Your task to perform on an android device: toggle improve location accuracy Image 0: 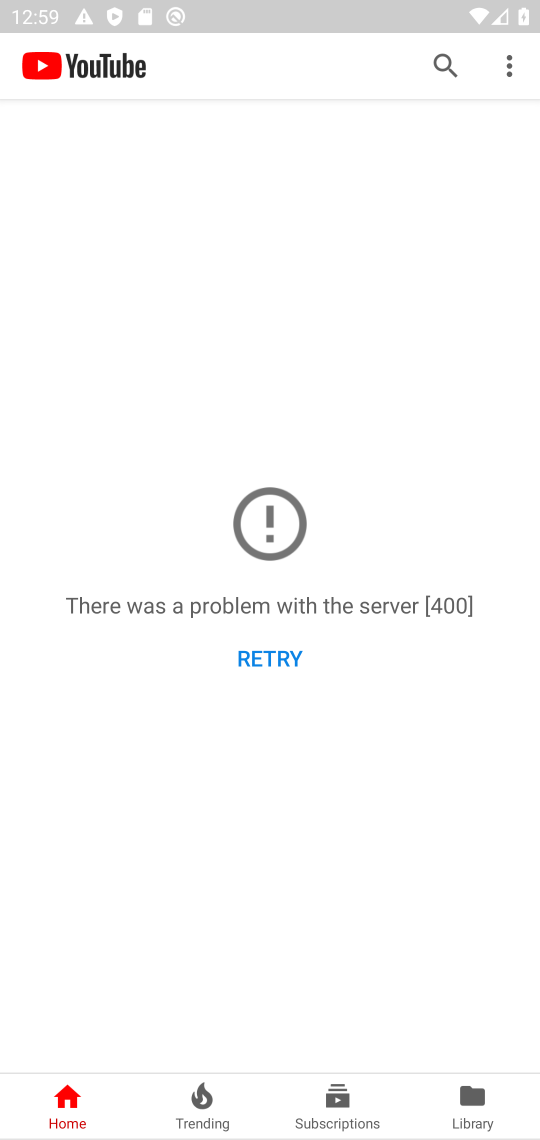
Step 0: press home button
Your task to perform on an android device: toggle improve location accuracy Image 1: 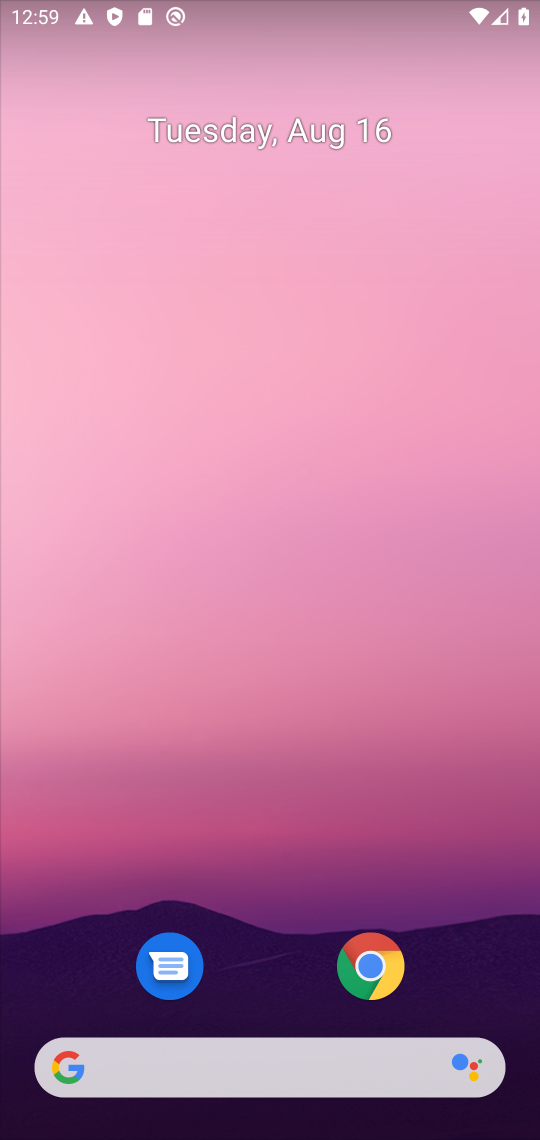
Step 1: drag from (220, 915) to (200, 82)
Your task to perform on an android device: toggle improve location accuracy Image 2: 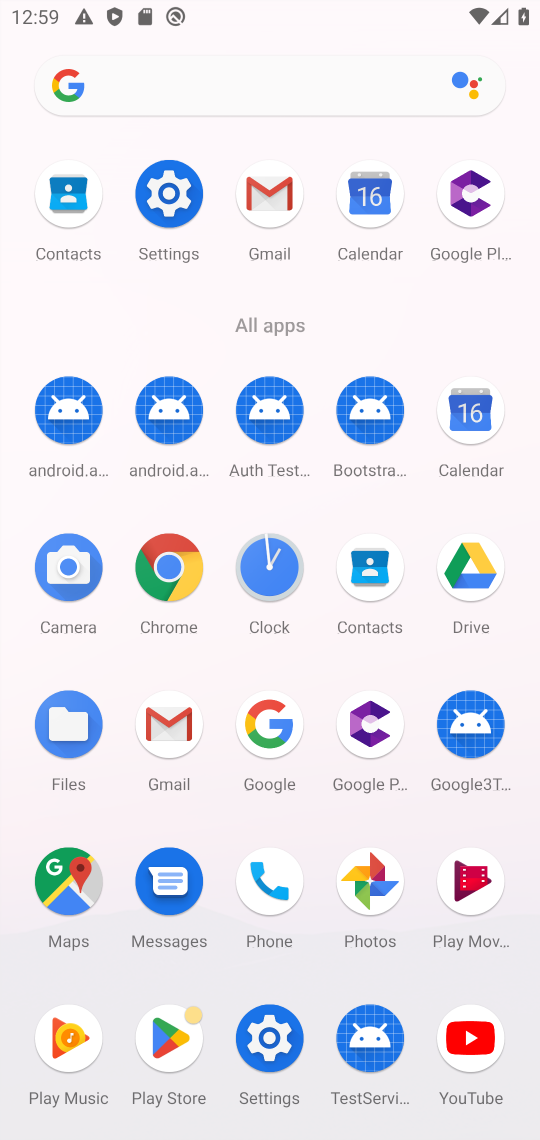
Step 2: click (170, 190)
Your task to perform on an android device: toggle improve location accuracy Image 3: 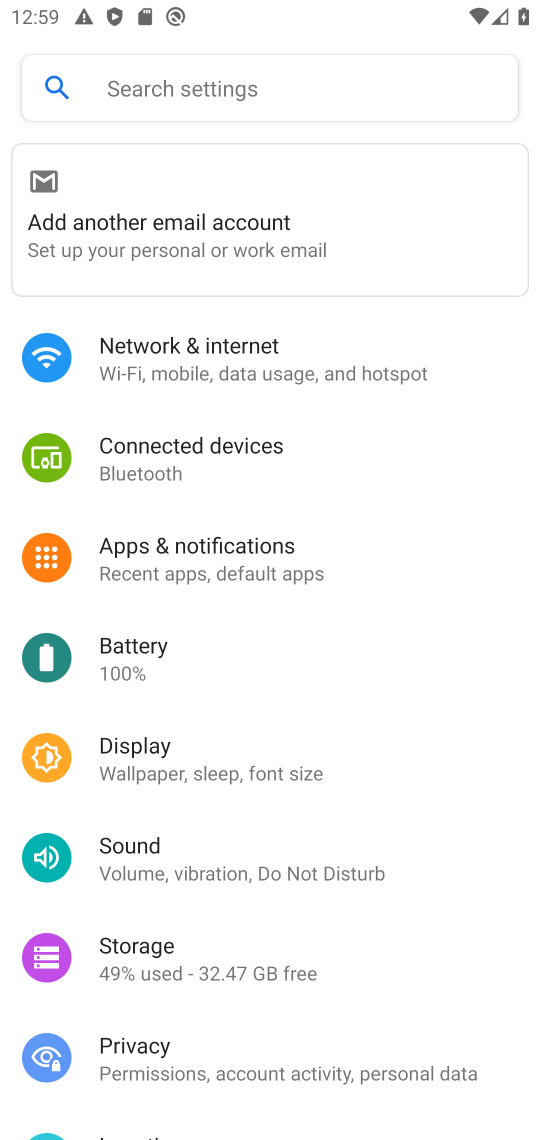
Step 3: drag from (314, 999) to (268, 79)
Your task to perform on an android device: toggle improve location accuracy Image 4: 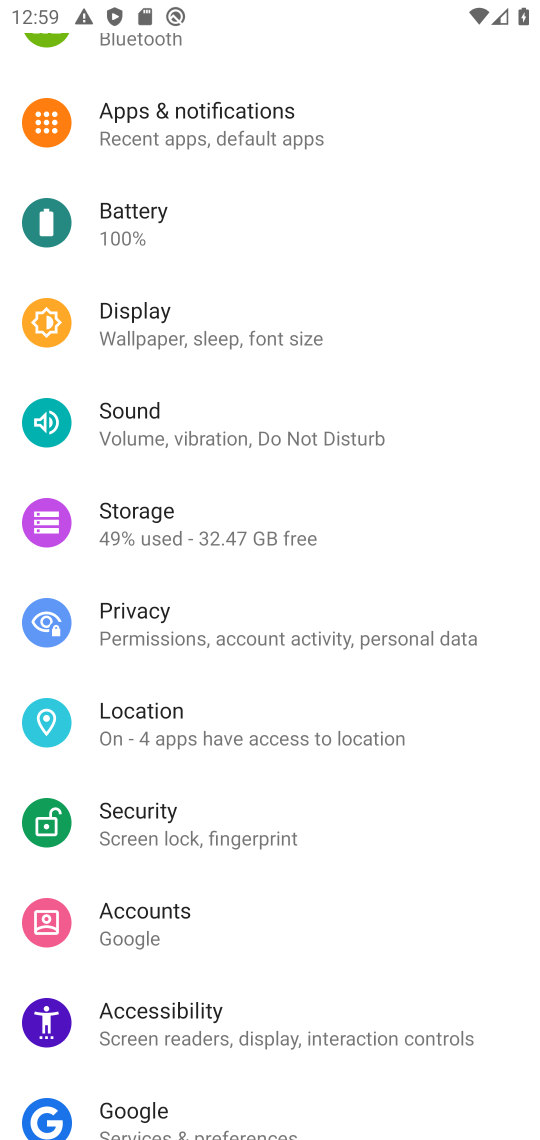
Step 4: click (115, 708)
Your task to perform on an android device: toggle improve location accuracy Image 5: 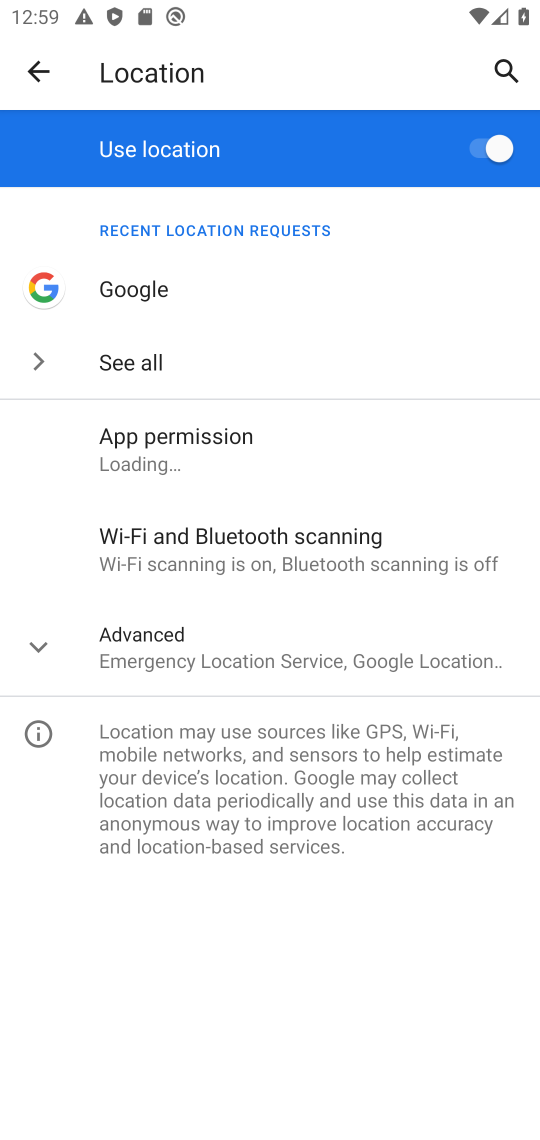
Step 5: click (57, 643)
Your task to perform on an android device: toggle improve location accuracy Image 6: 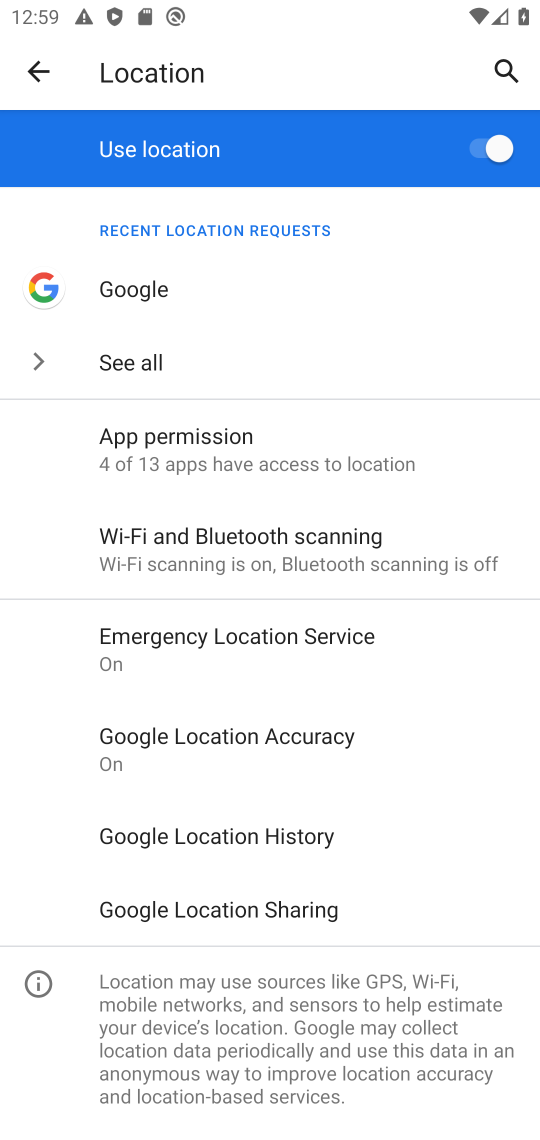
Step 6: click (262, 729)
Your task to perform on an android device: toggle improve location accuracy Image 7: 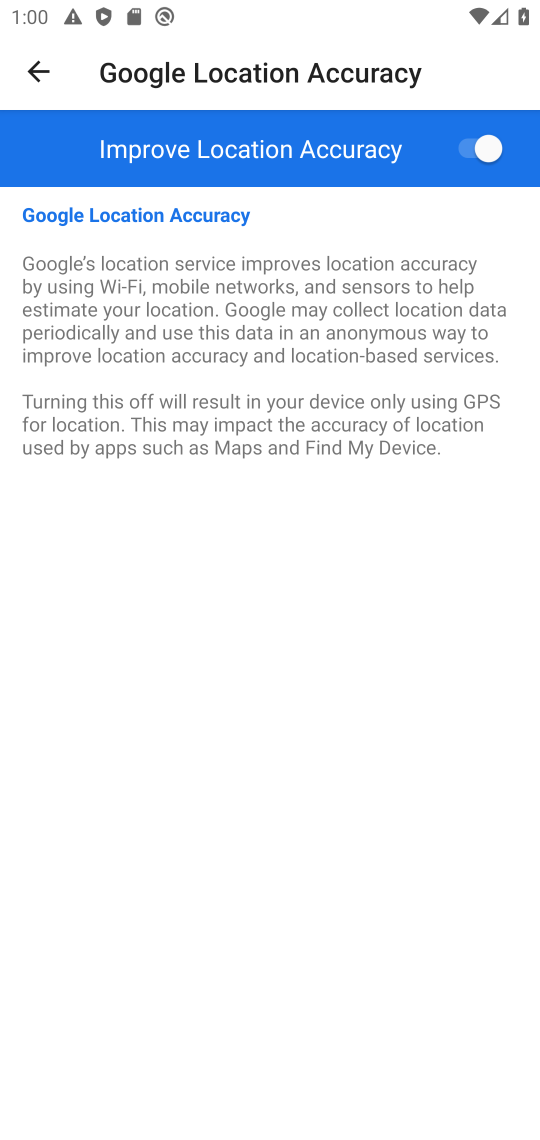
Step 7: click (493, 153)
Your task to perform on an android device: toggle improve location accuracy Image 8: 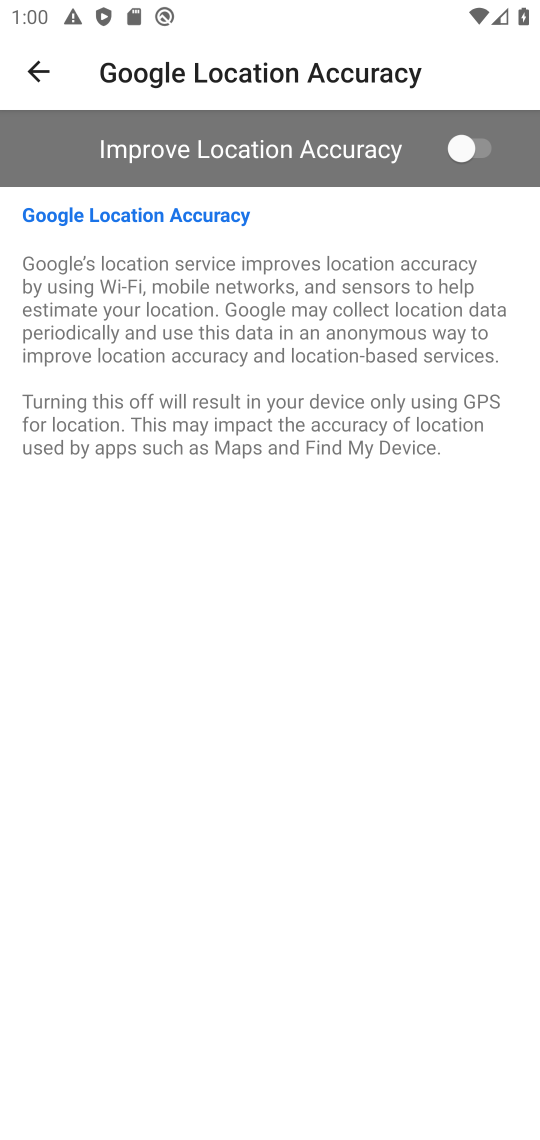
Step 8: task complete